Your task to perform on an android device: Go to network settings Image 0: 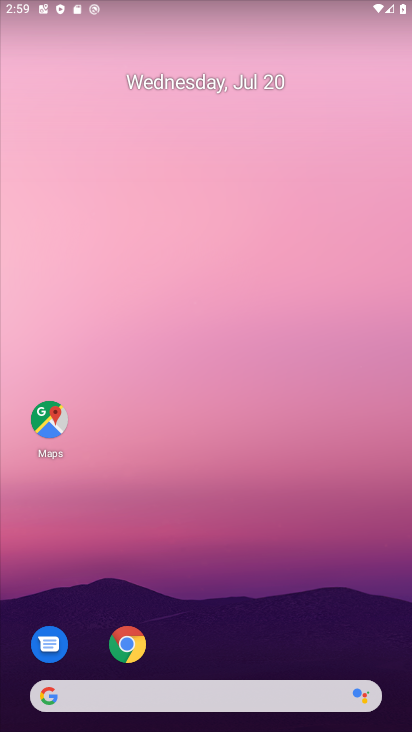
Step 0: drag from (195, 676) to (143, 182)
Your task to perform on an android device: Go to network settings Image 1: 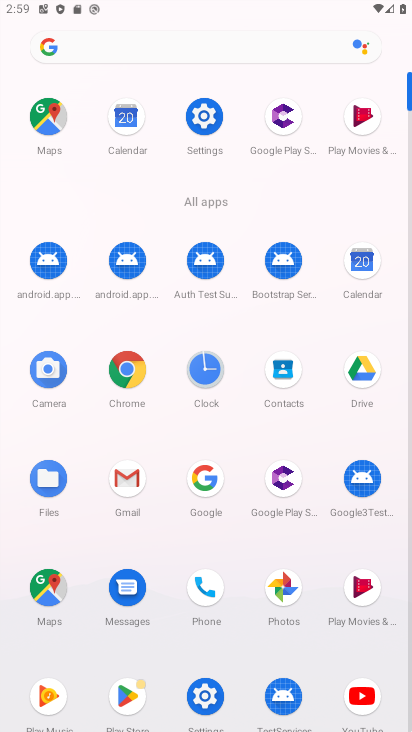
Step 1: click (192, 112)
Your task to perform on an android device: Go to network settings Image 2: 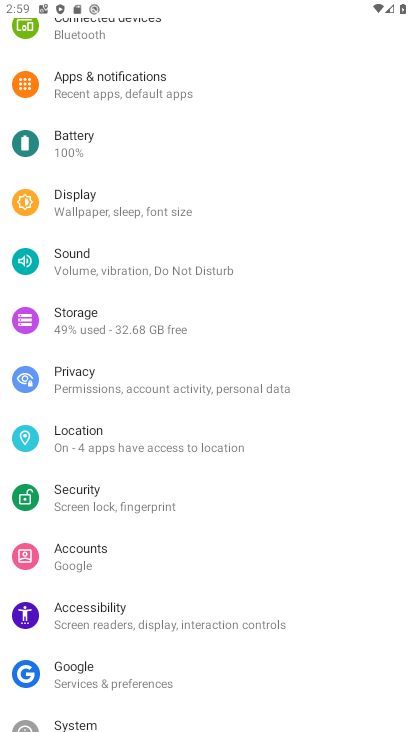
Step 2: drag from (108, 36) to (153, 372)
Your task to perform on an android device: Go to network settings Image 3: 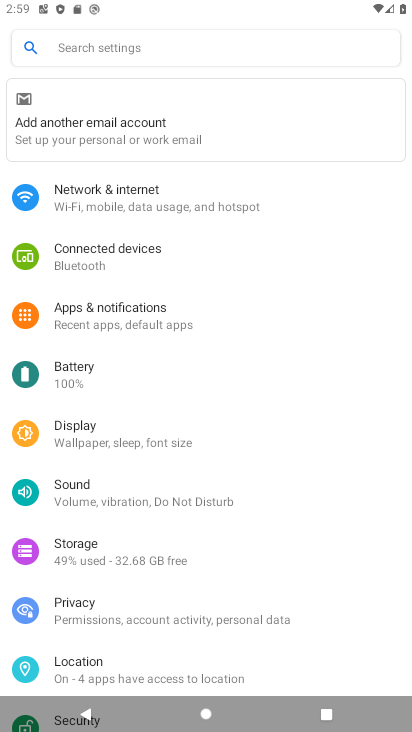
Step 3: click (110, 190)
Your task to perform on an android device: Go to network settings Image 4: 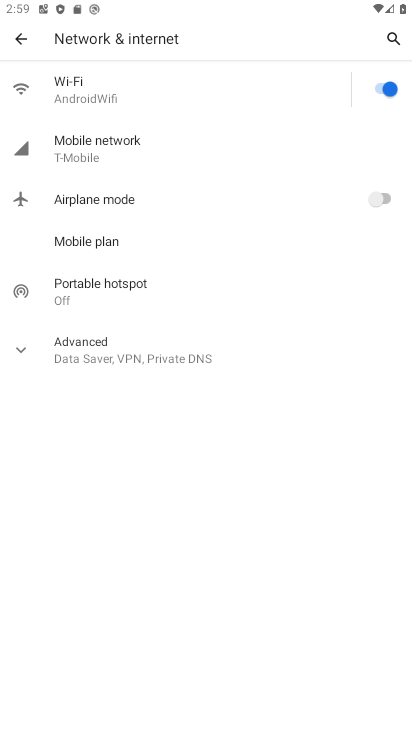
Step 4: click (145, 358)
Your task to perform on an android device: Go to network settings Image 5: 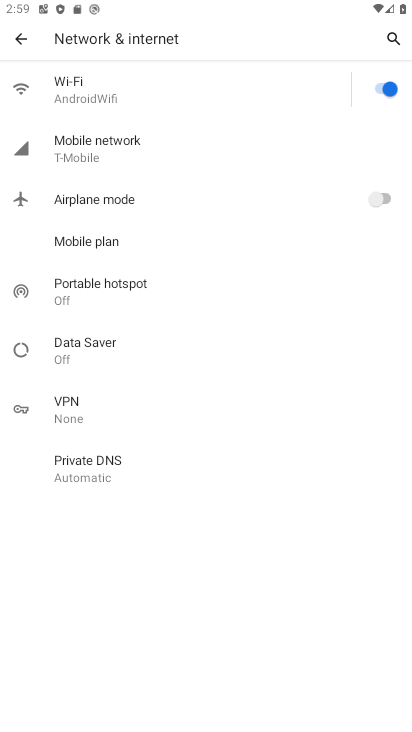
Step 5: click (98, 148)
Your task to perform on an android device: Go to network settings Image 6: 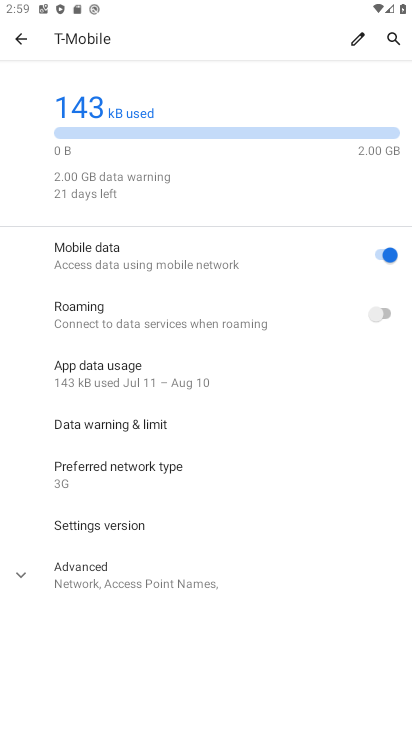
Step 6: click (101, 565)
Your task to perform on an android device: Go to network settings Image 7: 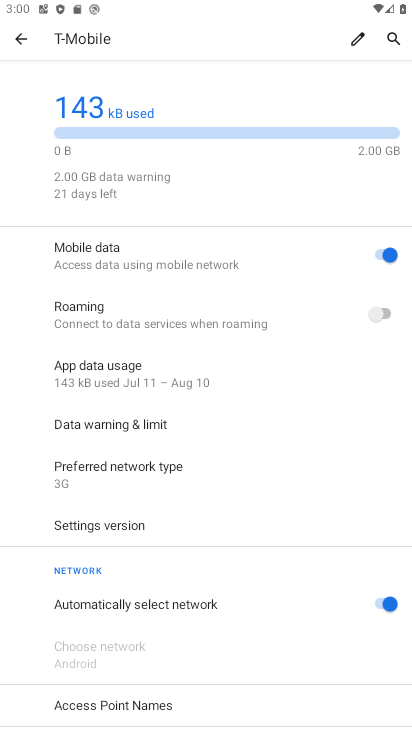
Step 7: task complete